Your task to perform on an android device: Go to notification settings Image 0: 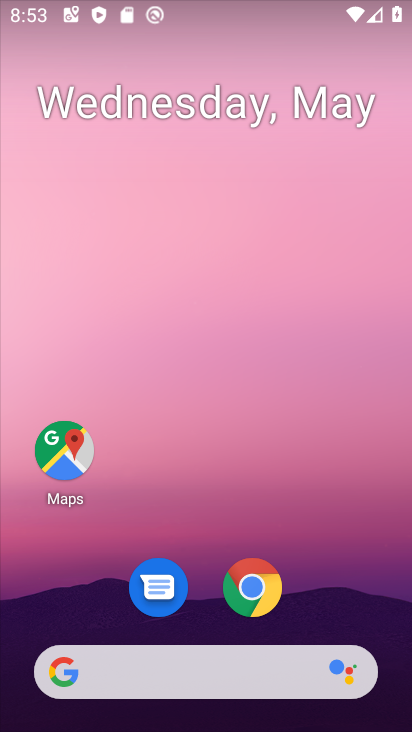
Step 0: drag from (216, 727) to (196, 169)
Your task to perform on an android device: Go to notification settings Image 1: 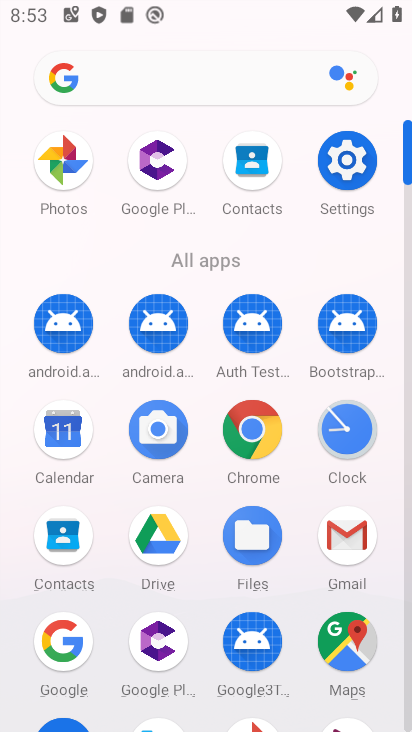
Step 1: click (358, 173)
Your task to perform on an android device: Go to notification settings Image 2: 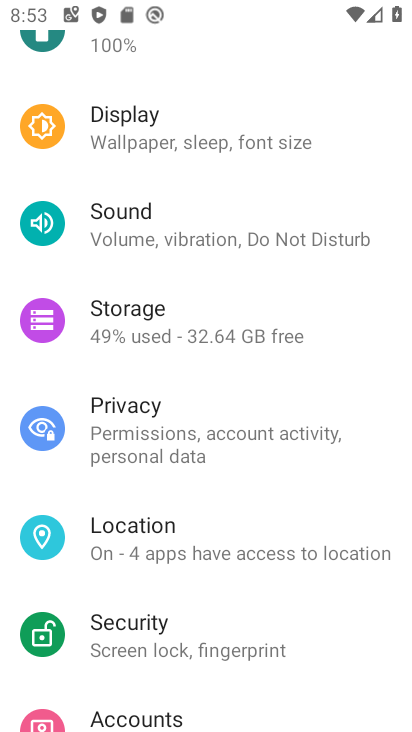
Step 2: drag from (243, 167) to (248, 601)
Your task to perform on an android device: Go to notification settings Image 3: 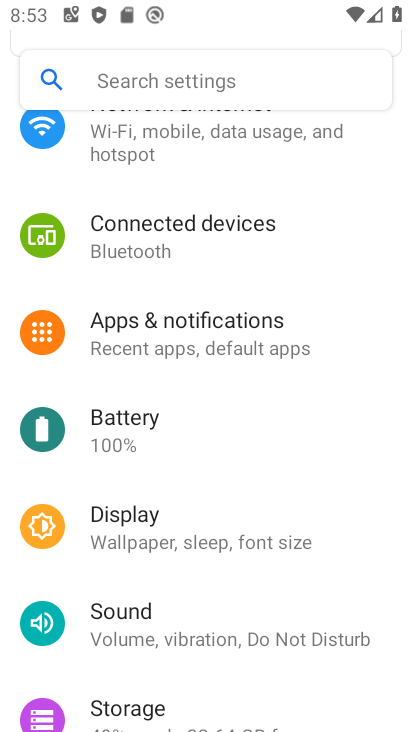
Step 3: click (220, 332)
Your task to perform on an android device: Go to notification settings Image 4: 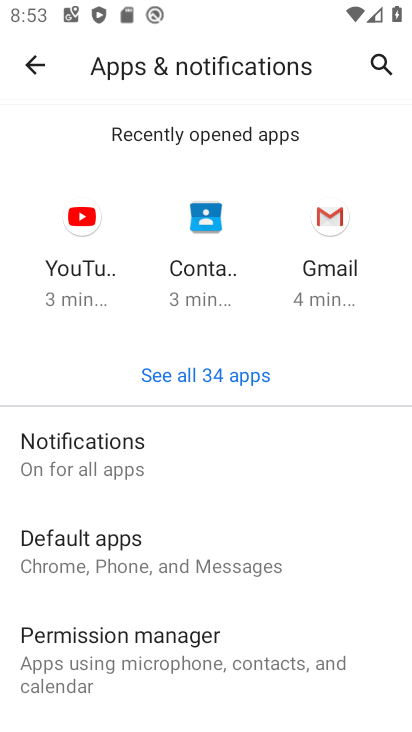
Step 4: click (82, 462)
Your task to perform on an android device: Go to notification settings Image 5: 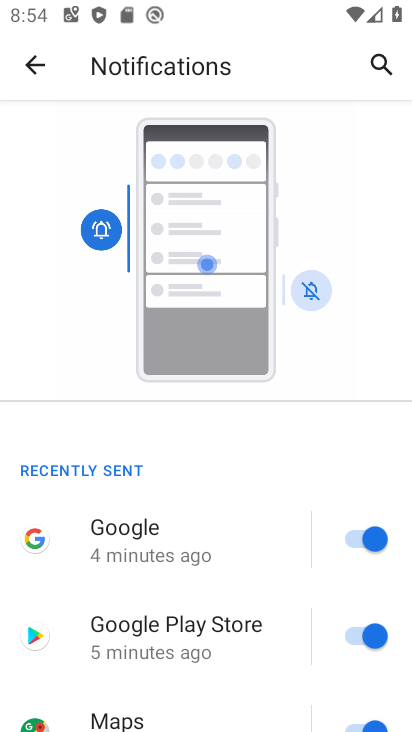
Step 5: task complete